Your task to perform on an android device: Open Google Chrome Image 0: 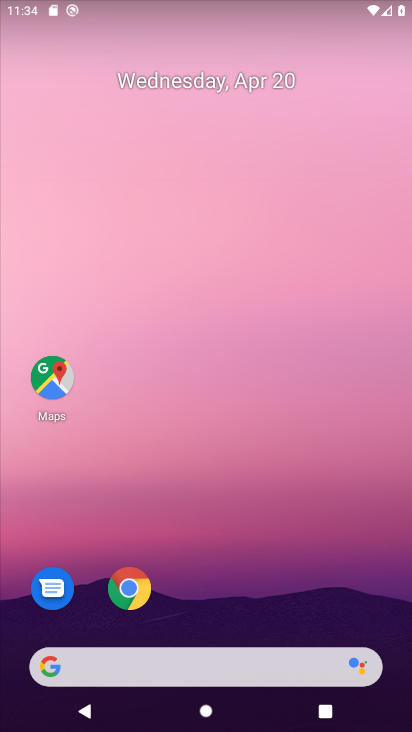
Step 0: drag from (169, 669) to (301, 138)
Your task to perform on an android device: Open Google Chrome Image 1: 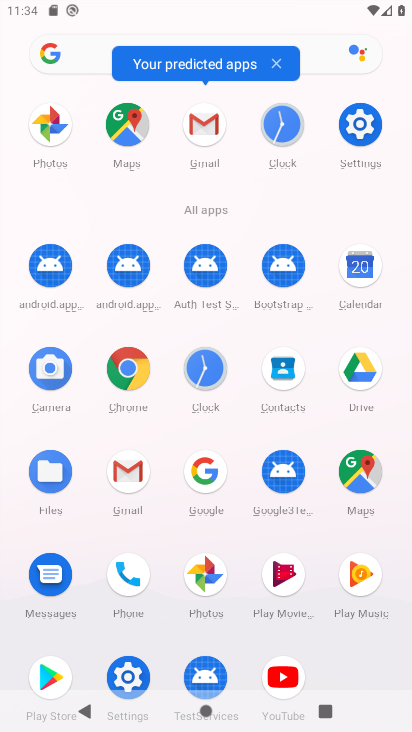
Step 1: click (131, 370)
Your task to perform on an android device: Open Google Chrome Image 2: 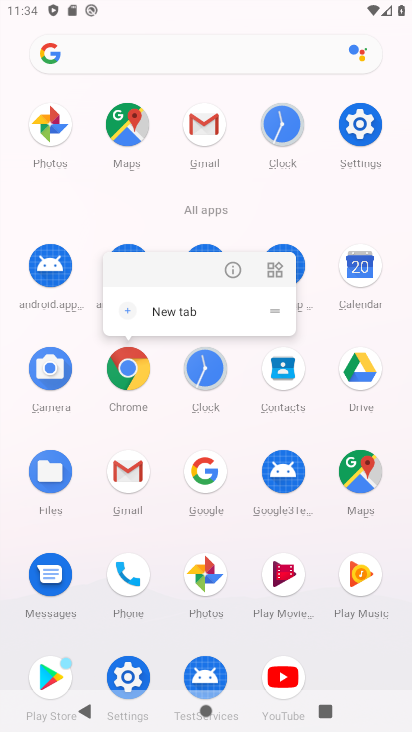
Step 2: click (131, 377)
Your task to perform on an android device: Open Google Chrome Image 3: 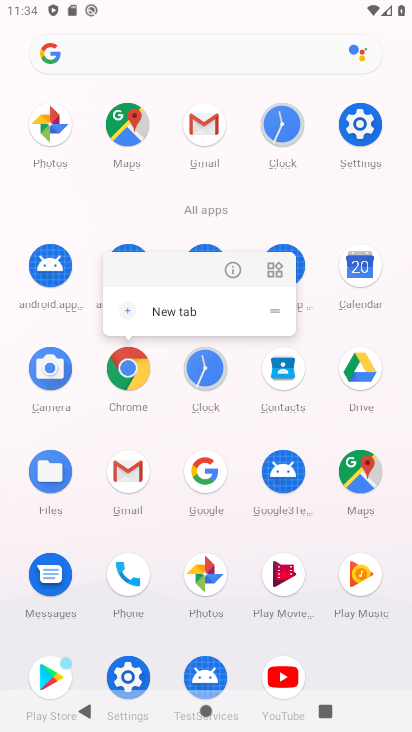
Step 3: click (132, 374)
Your task to perform on an android device: Open Google Chrome Image 4: 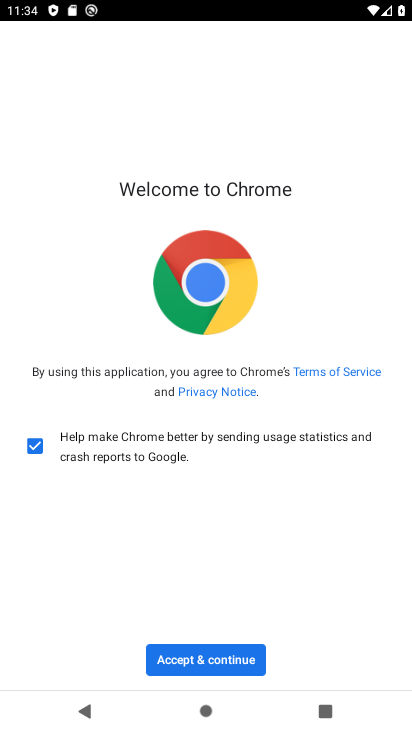
Step 4: click (183, 661)
Your task to perform on an android device: Open Google Chrome Image 5: 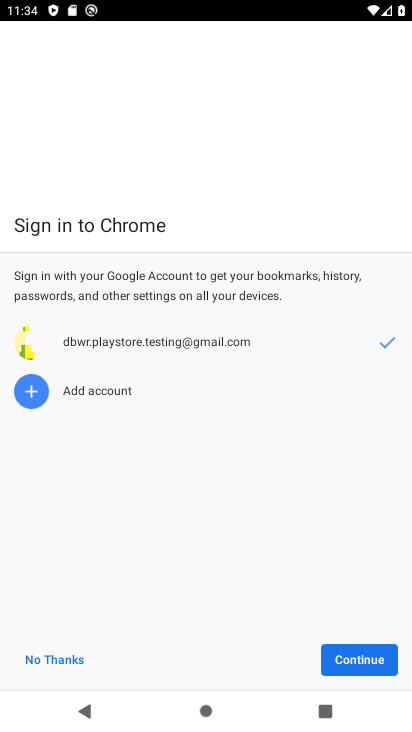
Step 5: click (340, 661)
Your task to perform on an android device: Open Google Chrome Image 6: 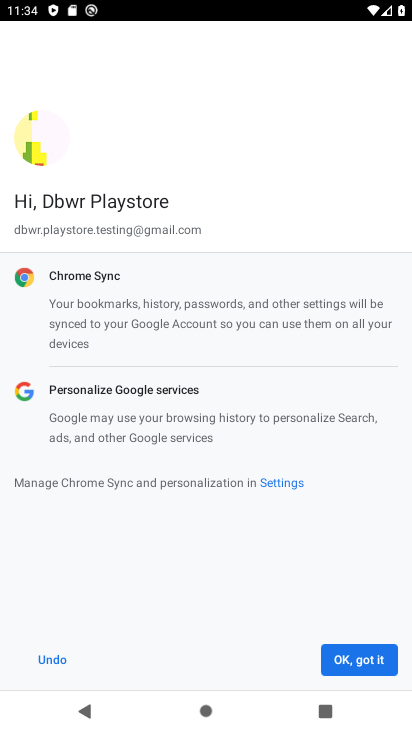
Step 6: click (340, 661)
Your task to perform on an android device: Open Google Chrome Image 7: 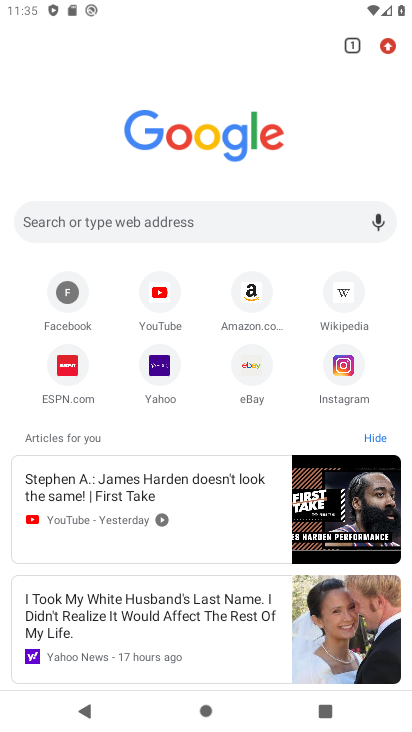
Step 7: task complete